Your task to perform on an android device: turn off translation in the chrome app Image 0: 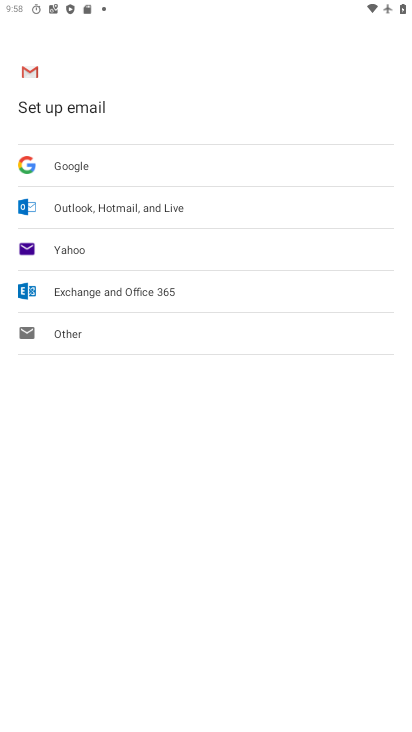
Step 0: press home button
Your task to perform on an android device: turn off translation in the chrome app Image 1: 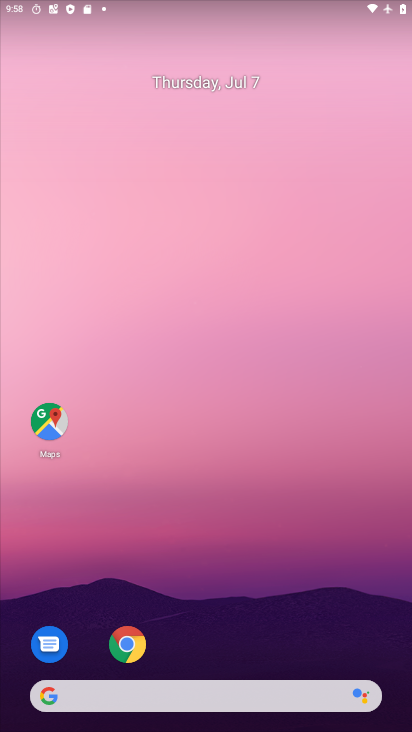
Step 1: click (126, 639)
Your task to perform on an android device: turn off translation in the chrome app Image 2: 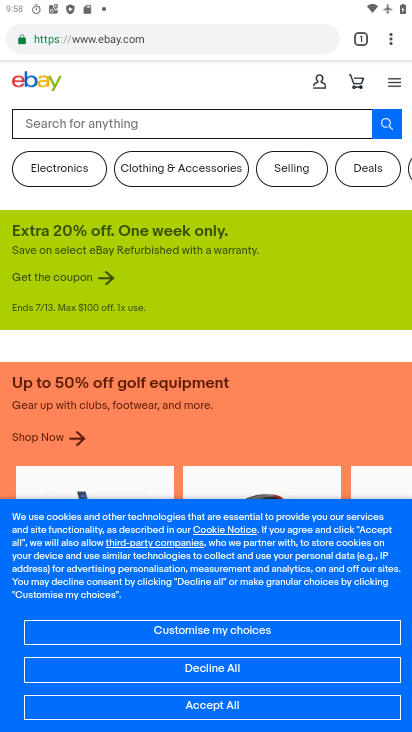
Step 2: click (392, 32)
Your task to perform on an android device: turn off translation in the chrome app Image 3: 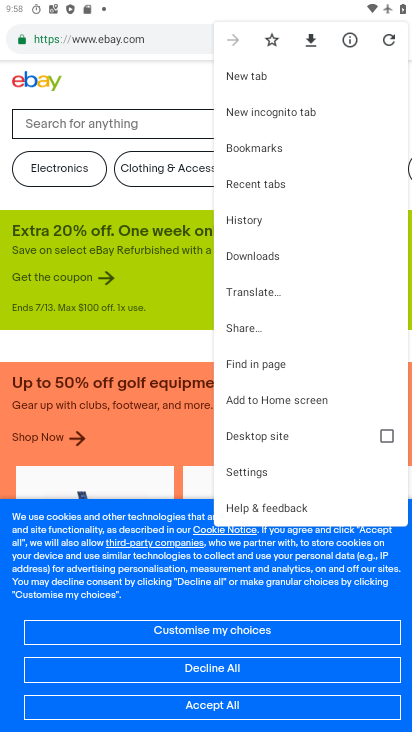
Step 3: click (241, 467)
Your task to perform on an android device: turn off translation in the chrome app Image 4: 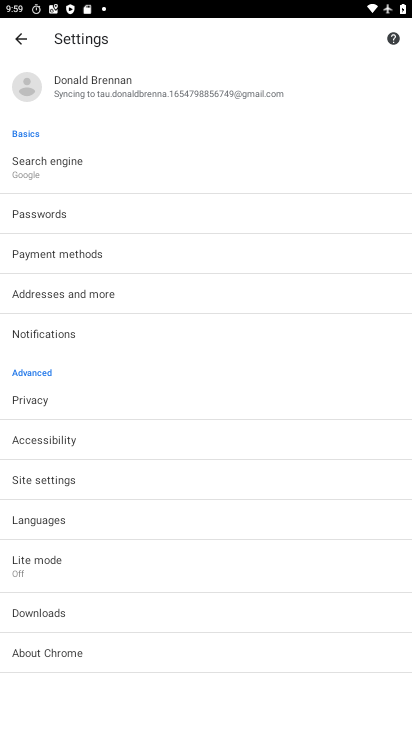
Step 4: drag from (204, 644) to (260, 266)
Your task to perform on an android device: turn off translation in the chrome app Image 5: 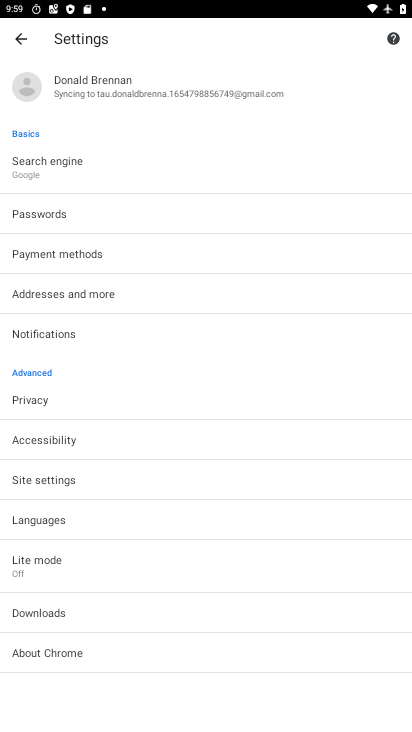
Step 5: click (52, 521)
Your task to perform on an android device: turn off translation in the chrome app Image 6: 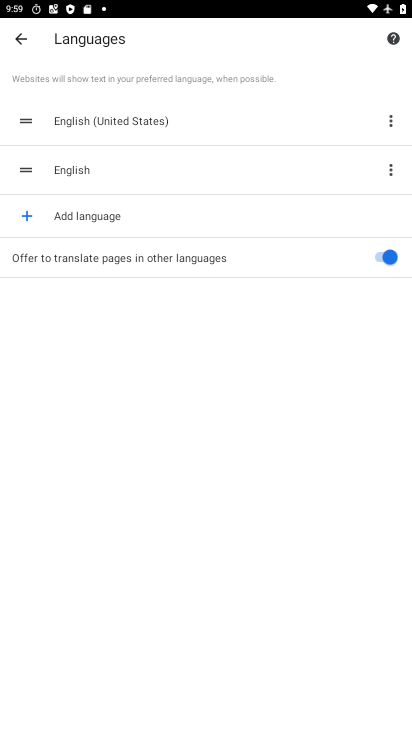
Step 6: click (387, 259)
Your task to perform on an android device: turn off translation in the chrome app Image 7: 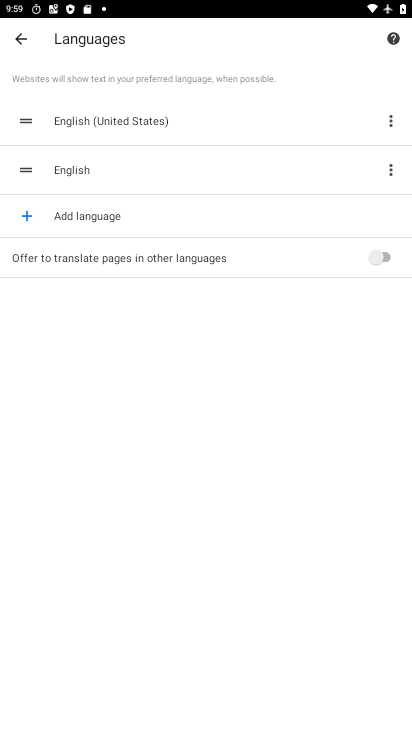
Step 7: task complete